Your task to perform on an android device: Open Google Maps and go to "Timeline" Image 0: 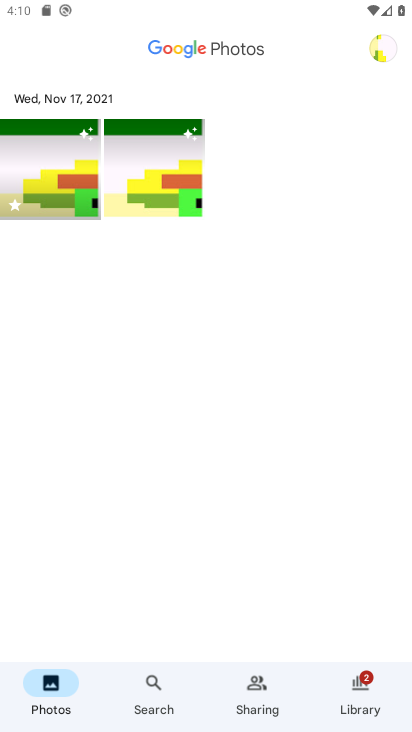
Step 0: press home button
Your task to perform on an android device: Open Google Maps and go to "Timeline" Image 1: 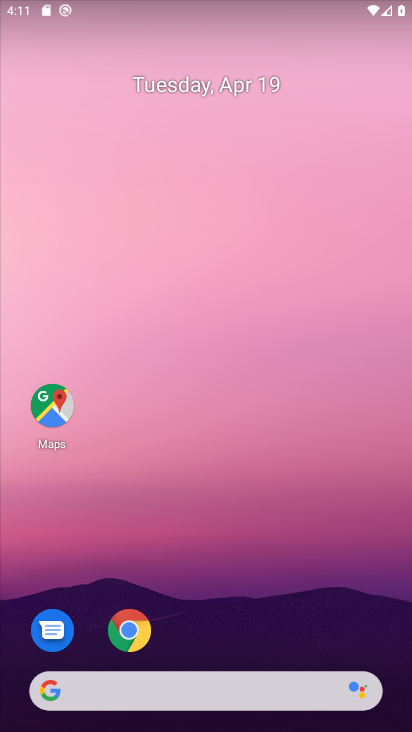
Step 1: drag from (178, 578) to (126, 310)
Your task to perform on an android device: Open Google Maps and go to "Timeline" Image 2: 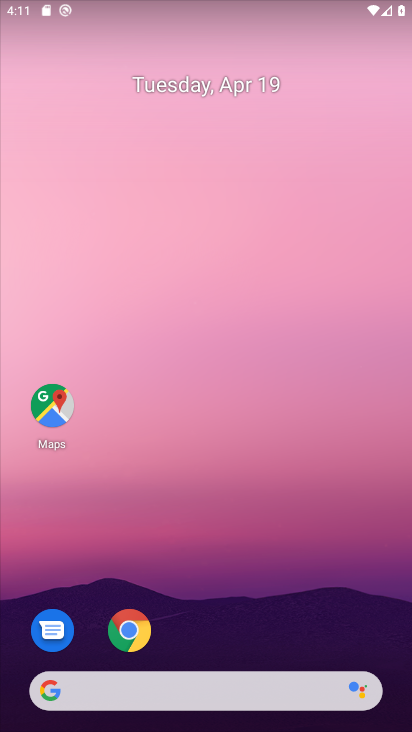
Step 2: drag from (174, 604) to (169, 266)
Your task to perform on an android device: Open Google Maps and go to "Timeline" Image 3: 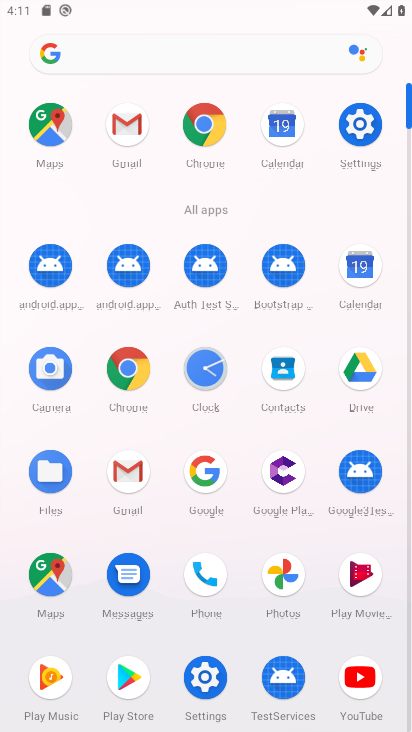
Step 3: click (49, 576)
Your task to perform on an android device: Open Google Maps and go to "Timeline" Image 4: 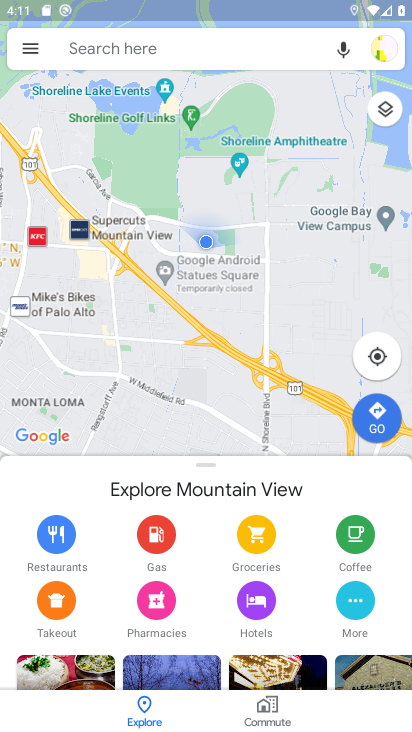
Step 4: drag from (28, 52) to (46, 118)
Your task to perform on an android device: Open Google Maps and go to "Timeline" Image 5: 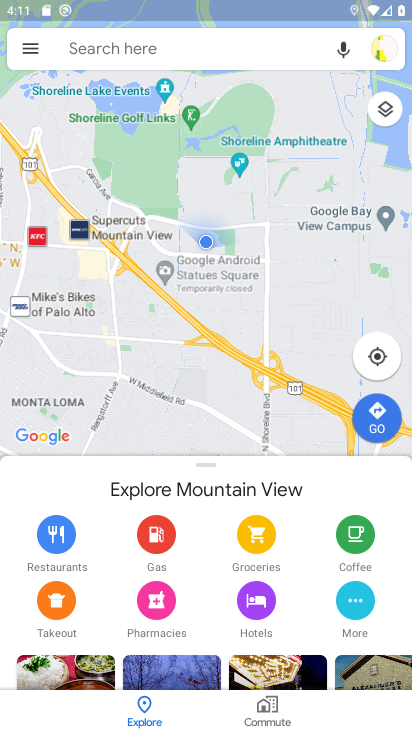
Step 5: click (32, 53)
Your task to perform on an android device: Open Google Maps and go to "Timeline" Image 6: 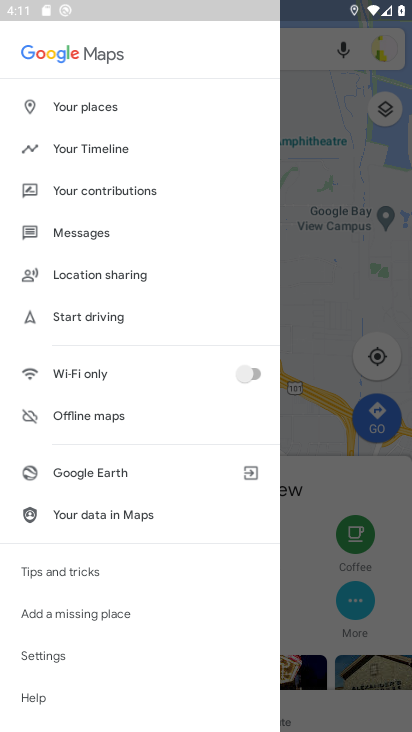
Step 6: click (117, 143)
Your task to perform on an android device: Open Google Maps and go to "Timeline" Image 7: 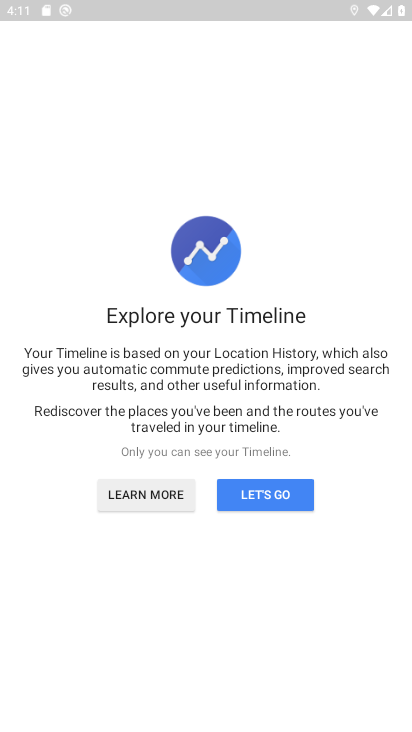
Step 7: click (253, 492)
Your task to perform on an android device: Open Google Maps and go to "Timeline" Image 8: 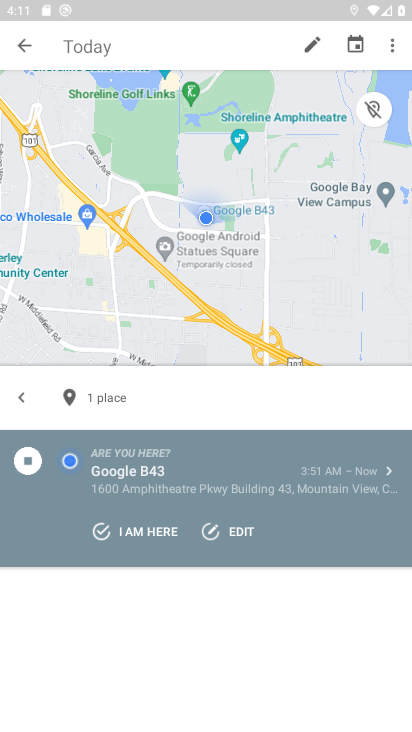
Step 8: task complete